Your task to perform on an android device: turn pop-ups on in chrome Image 0: 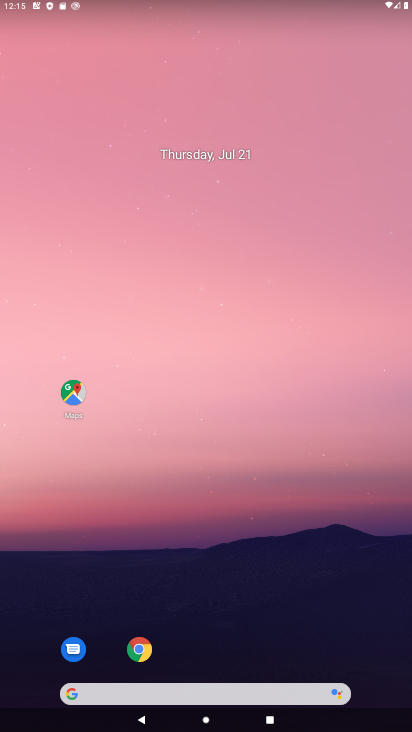
Step 0: click (137, 650)
Your task to perform on an android device: turn pop-ups on in chrome Image 1: 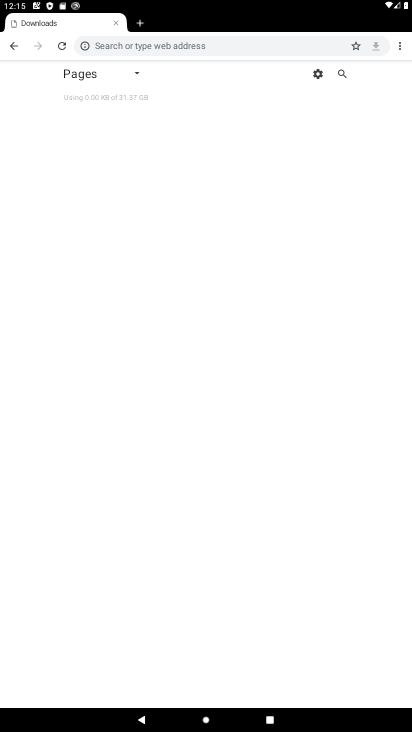
Step 1: click (398, 48)
Your task to perform on an android device: turn pop-ups on in chrome Image 2: 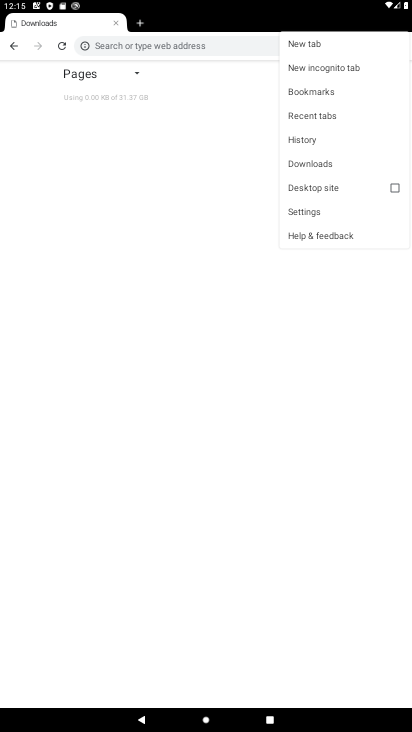
Step 2: click (306, 210)
Your task to perform on an android device: turn pop-ups on in chrome Image 3: 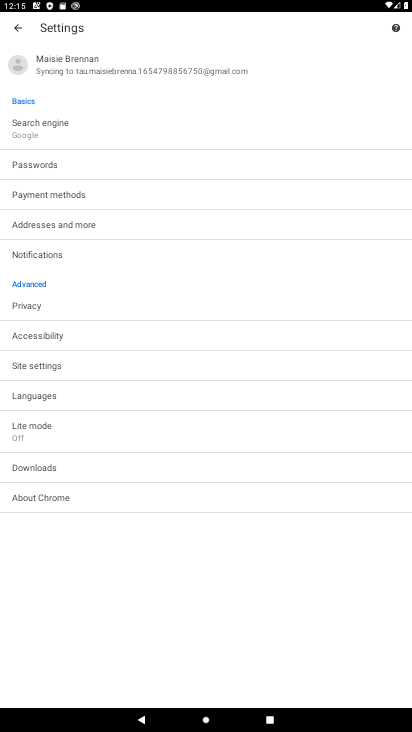
Step 3: click (33, 362)
Your task to perform on an android device: turn pop-ups on in chrome Image 4: 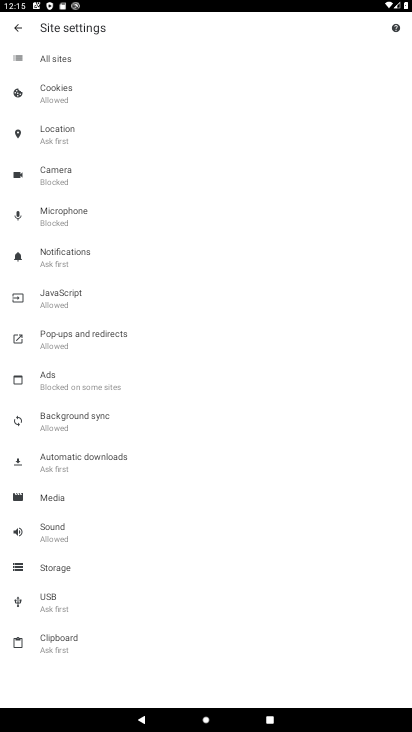
Step 4: click (56, 338)
Your task to perform on an android device: turn pop-ups on in chrome Image 5: 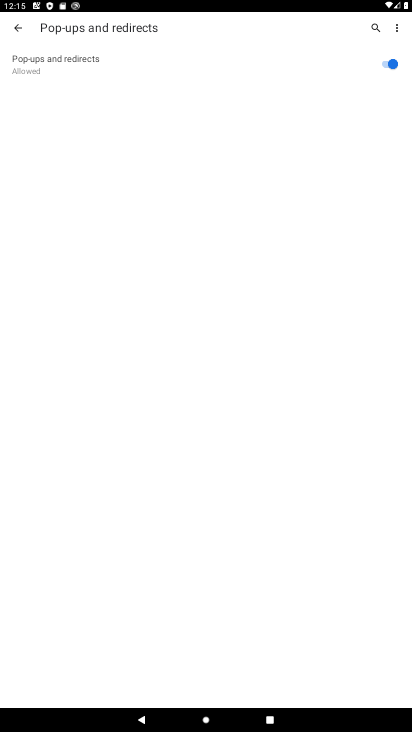
Step 5: task complete